Your task to perform on an android device: Open Google Maps and go to "Timeline" Image 0: 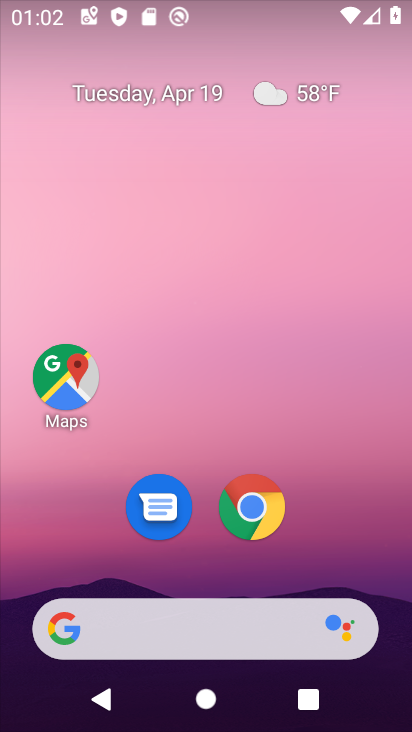
Step 0: drag from (182, 597) to (269, 212)
Your task to perform on an android device: Open Google Maps and go to "Timeline" Image 1: 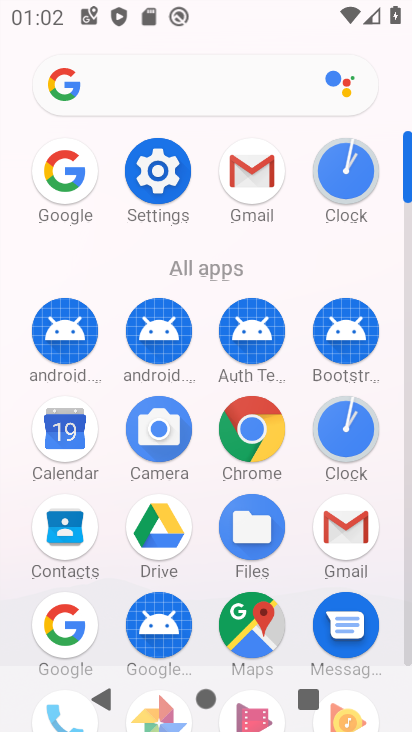
Step 1: click (239, 636)
Your task to perform on an android device: Open Google Maps and go to "Timeline" Image 2: 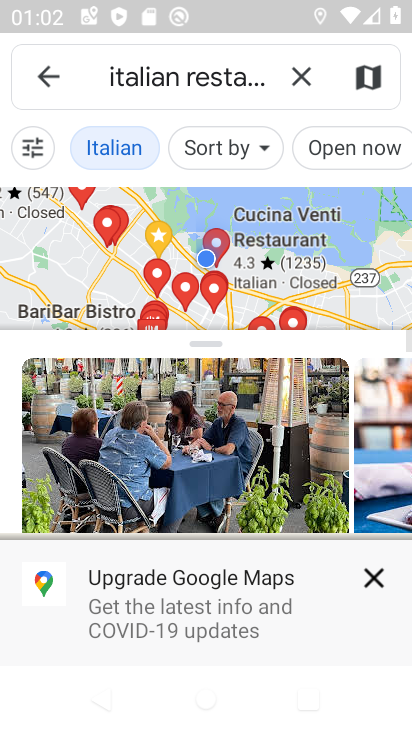
Step 2: click (38, 75)
Your task to perform on an android device: Open Google Maps and go to "Timeline" Image 3: 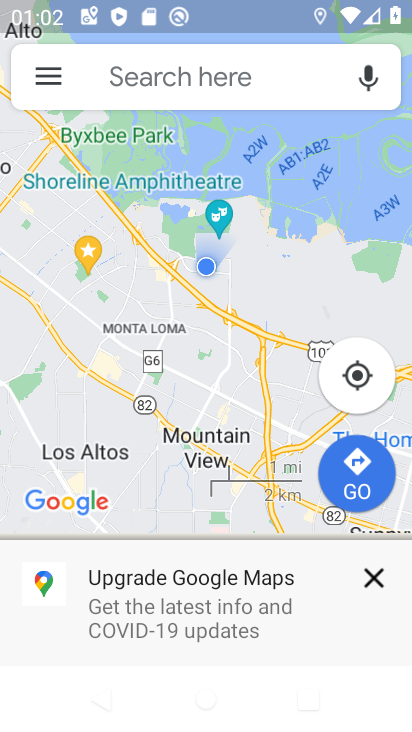
Step 3: click (39, 76)
Your task to perform on an android device: Open Google Maps and go to "Timeline" Image 4: 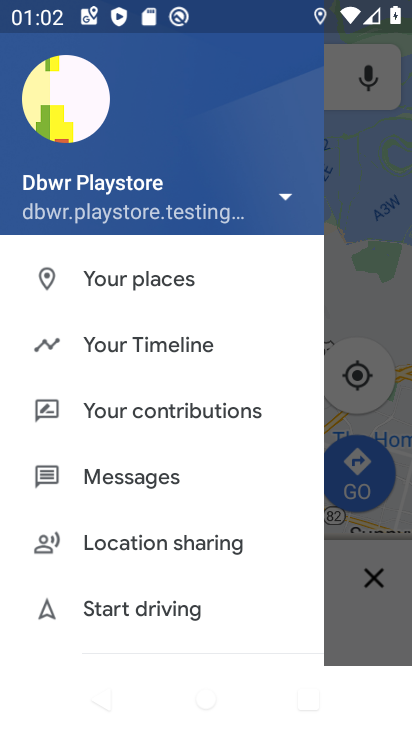
Step 4: click (120, 347)
Your task to perform on an android device: Open Google Maps and go to "Timeline" Image 5: 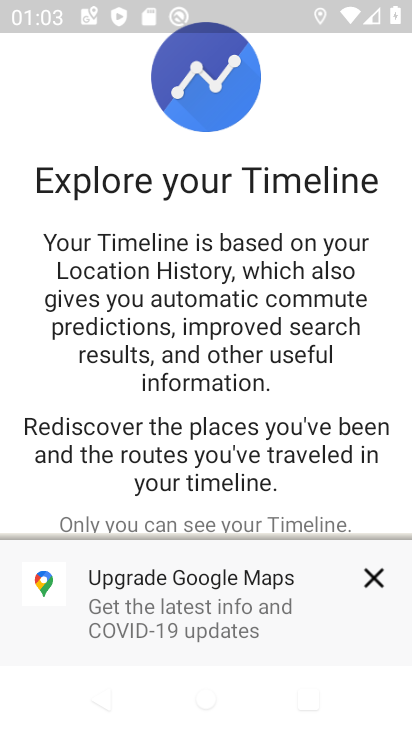
Step 5: task complete